Your task to perform on an android device: delete browsing data in the chrome app Image 0: 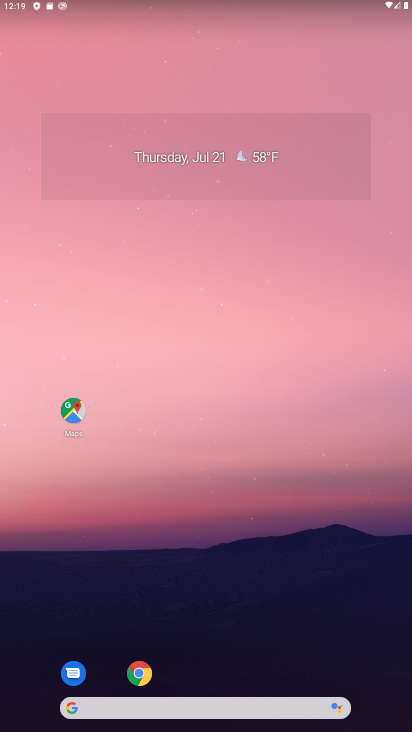
Step 0: drag from (316, 605) to (304, 169)
Your task to perform on an android device: delete browsing data in the chrome app Image 1: 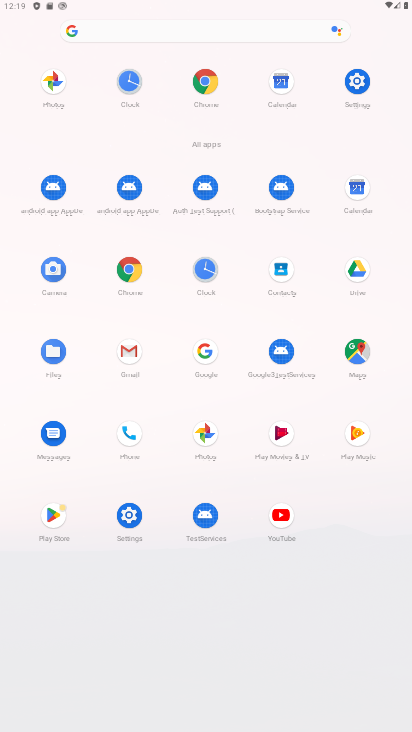
Step 1: click (209, 81)
Your task to perform on an android device: delete browsing data in the chrome app Image 2: 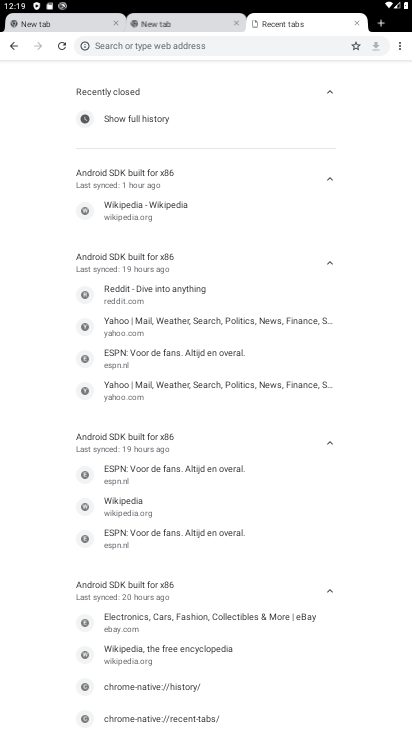
Step 2: click (403, 42)
Your task to perform on an android device: delete browsing data in the chrome app Image 3: 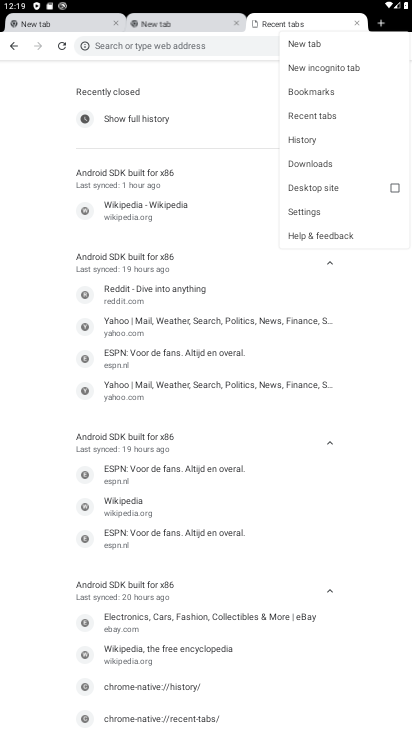
Step 3: click (312, 212)
Your task to perform on an android device: delete browsing data in the chrome app Image 4: 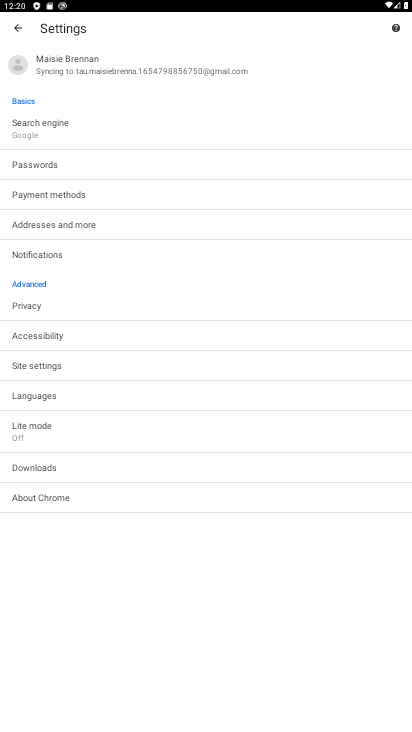
Step 4: click (51, 295)
Your task to perform on an android device: delete browsing data in the chrome app Image 5: 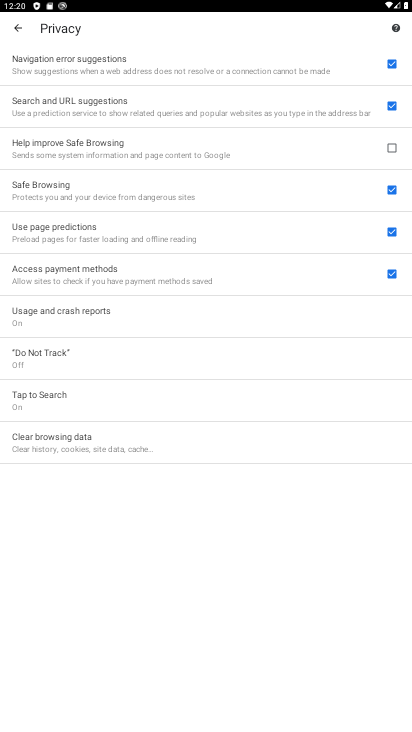
Step 5: click (98, 449)
Your task to perform on an android device: delete browsing data in the chrome app Image 6: 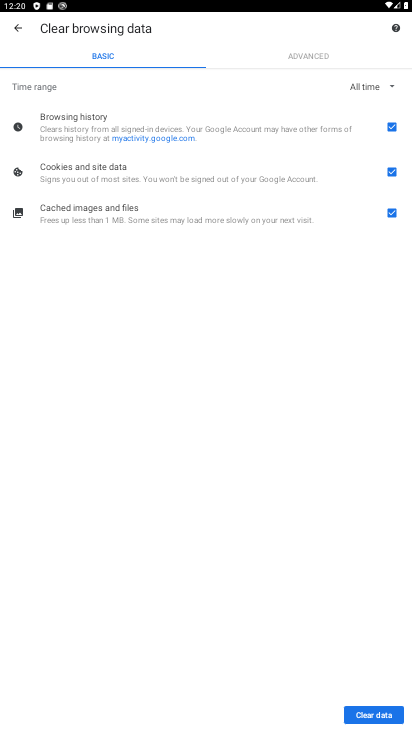
Step 6: click (390, 722)
Your task to perform on an android device: delete browsing data in the chrome app Image 7: 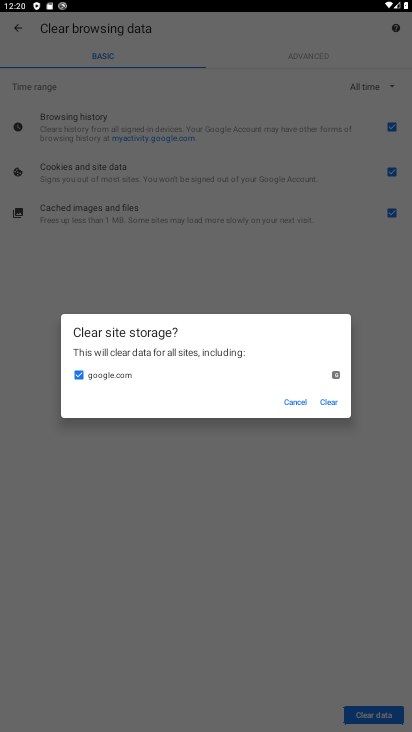
Step 7: click (328, 398)
Your task to perform on an android device: delete browsing data in the chrome app Image 8: 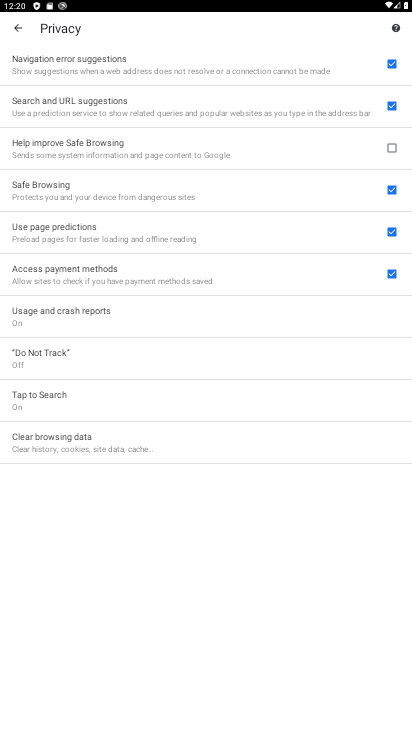
Step 8: task complete